Your task to perform on an android device: Find coffee shops on Maps Image 0: 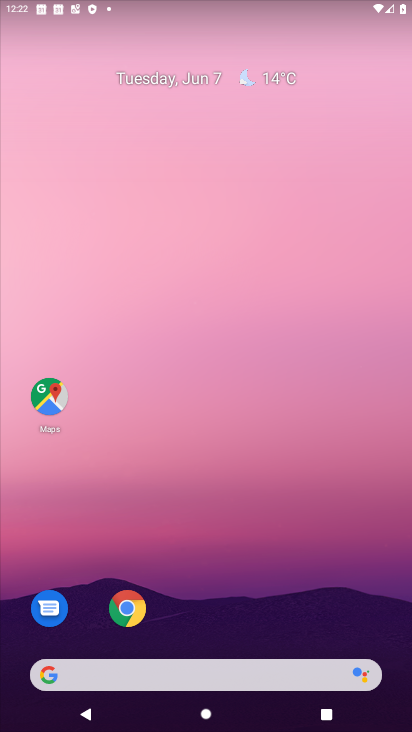
Step 0: drag from (221, 566) to (161, 29)
Your task to perform on an android device: Find coffee shops on Maps Image 1: 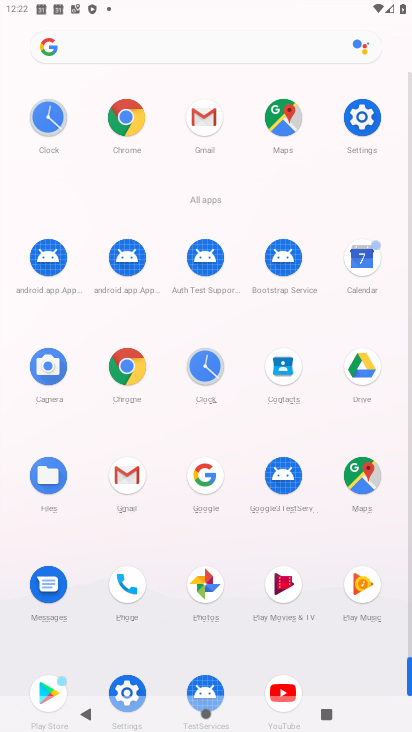
Step 1: click (363, 470)
Your task to perform on an android device: Find coffee shops on Maps Image 2: 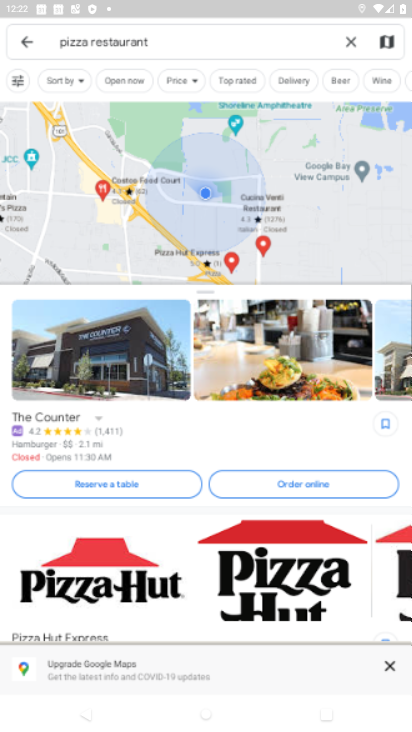
Step 2: click (26, 33)
Your task to perform on an android device: Find coffee shops on Maps Image 3: 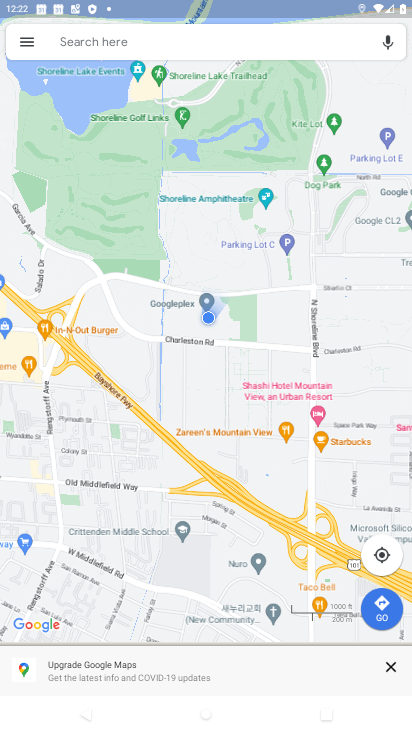
Step 3: click (172, 48)
Your task to perform on an android device: Find coffee shops on Maps Image 4: 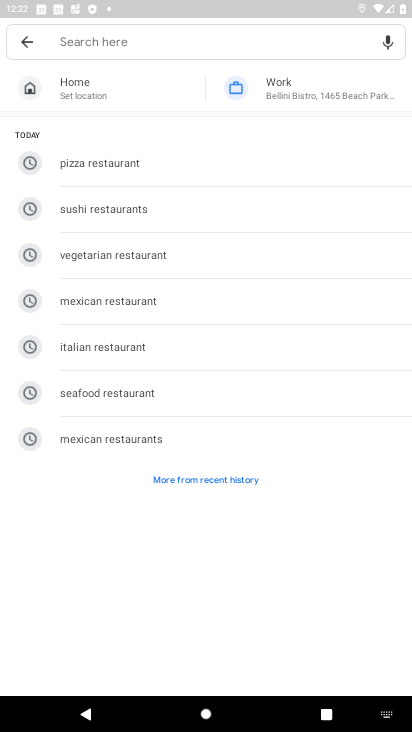
Step 4: type "coffee shops"
Your task to perform on an android device: Find coffee shops on Maps Image 5: 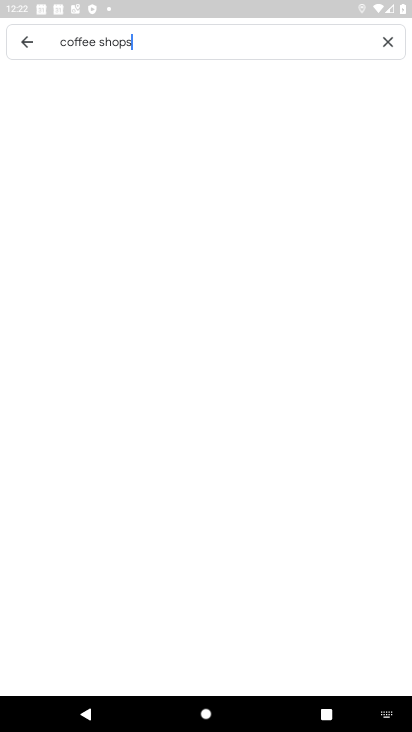
Step 5: type ""
Your task to perform on an android device: Find coffee shops on Maps Image 6: 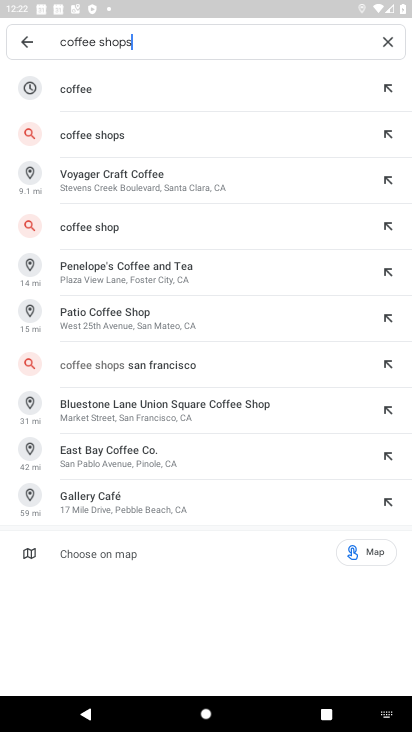
Step 6: click (111, 124)
Your task to perform on an android device: Find coffee shops on Maps Image 7: 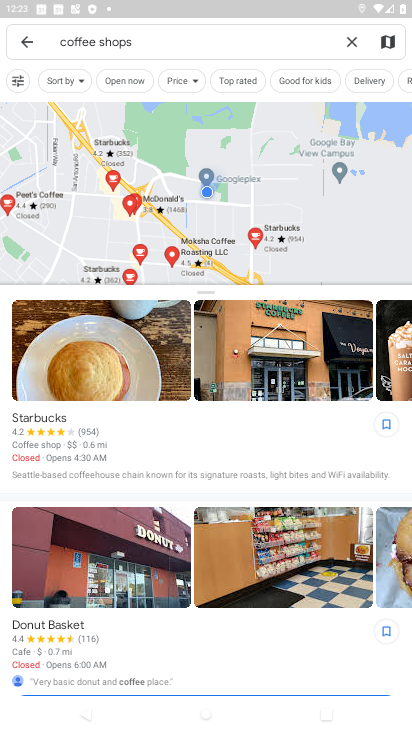
Step 7: task complete